Your task to perform on an android device: set an alarm Image 0: 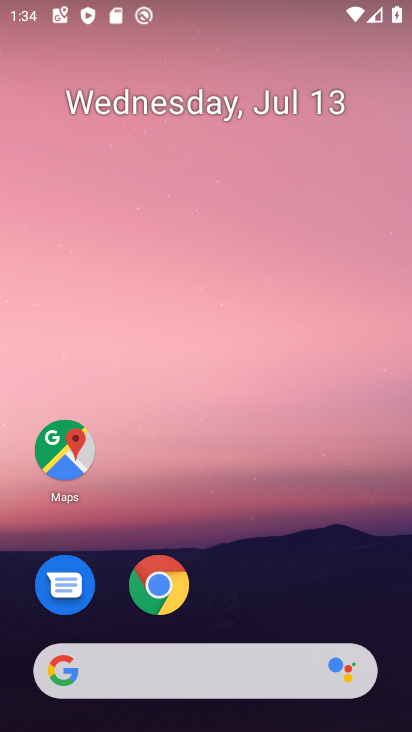
Step 0: drag from (194, 676) to (351, 153)
Your task to perform on an android device: set an alarm Image 1: 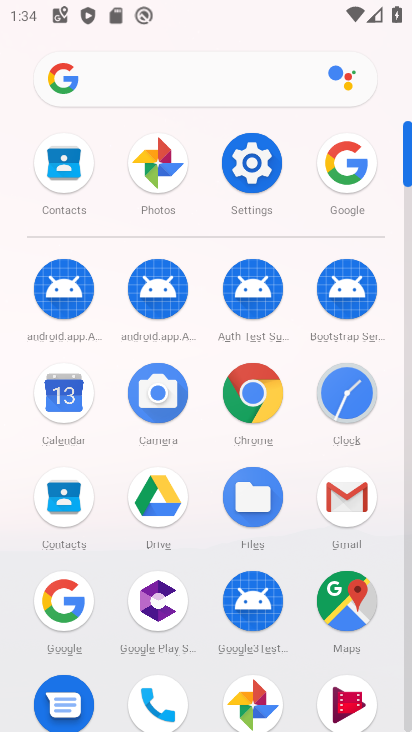
Step 1: click (353, 383)
Your task to perform on an android device: set an alarm Image 2: 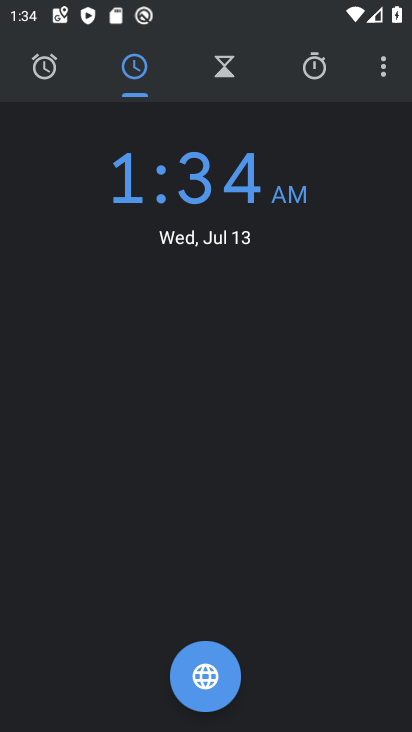
Step 2: click (44, 67)
Your task to perform on an android device: set an alarm Image 3: 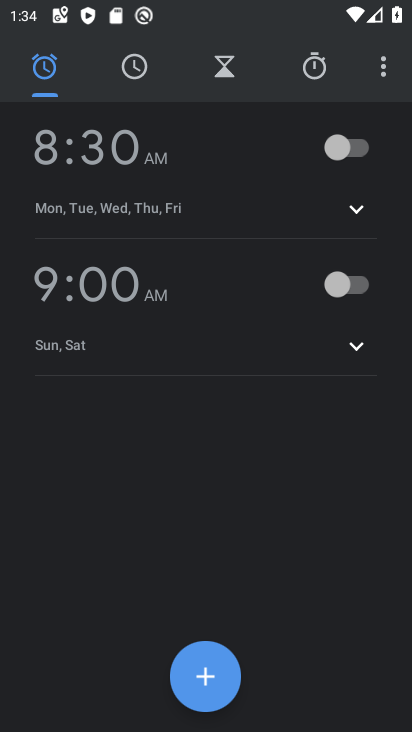
Step 3: click (364, 147)
Your task to perform on an android device: set an alarm Image 4: 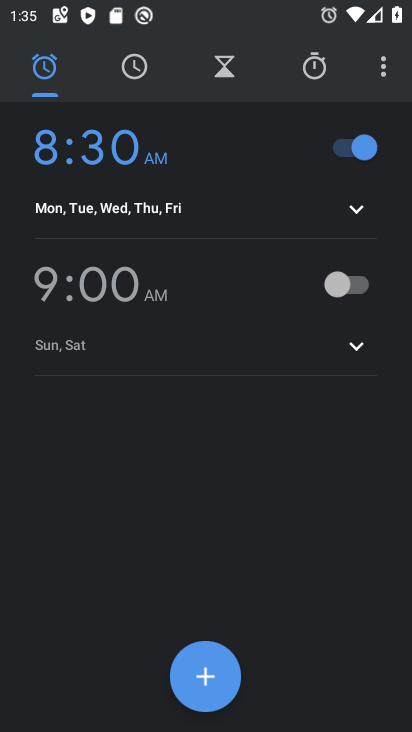
Step 4: task complete